Your task to perform on an android device: toggle airplane mode Image 0: 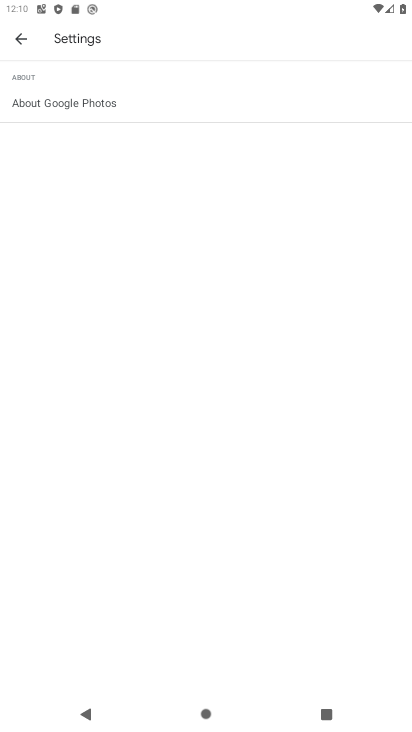
Step 0: press home button
Your task to perform on an android device: toggle airplane mode Image 1: 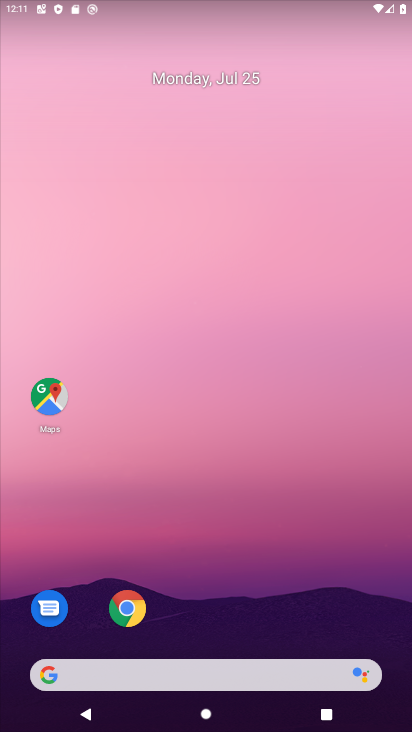
Step 1: drag from (226, 620) to (228, 0)
Your task to perform on an android device: toggle airplane mode Image 2: 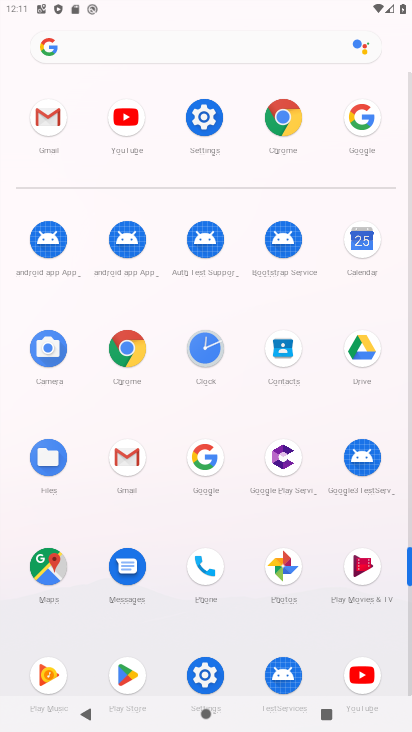
Step 2: click (201, 130)
Your task to perform on an android device: toggle airplane mode Image 3: 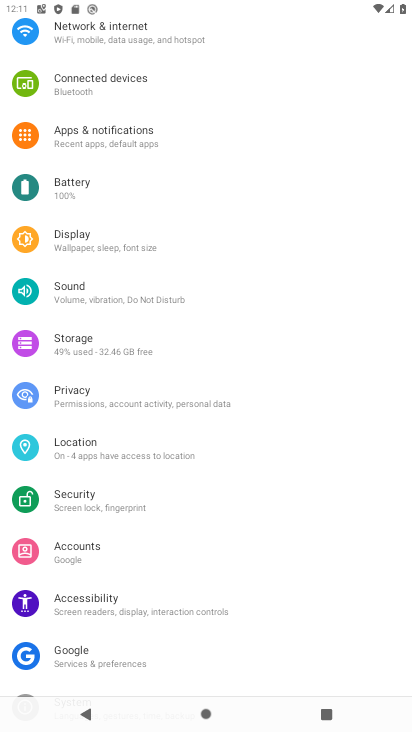
Step 3: click (108, 27)
Your task to perform on an android device: toggle airplane mode Image 4: 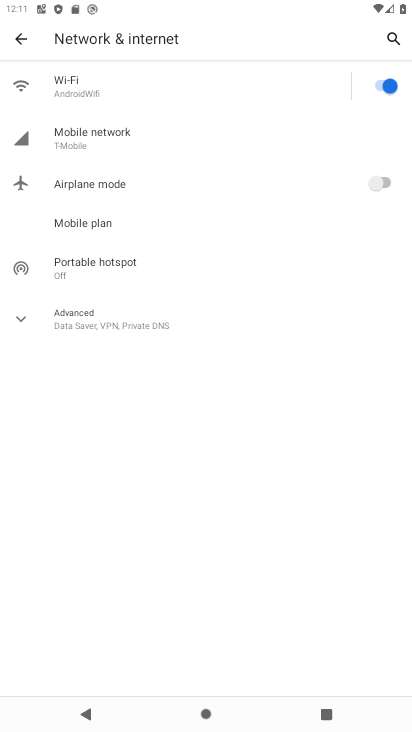
Step 4: click (383, 179)
Your task to perform on an android device: toggle airplane mode Image 5: 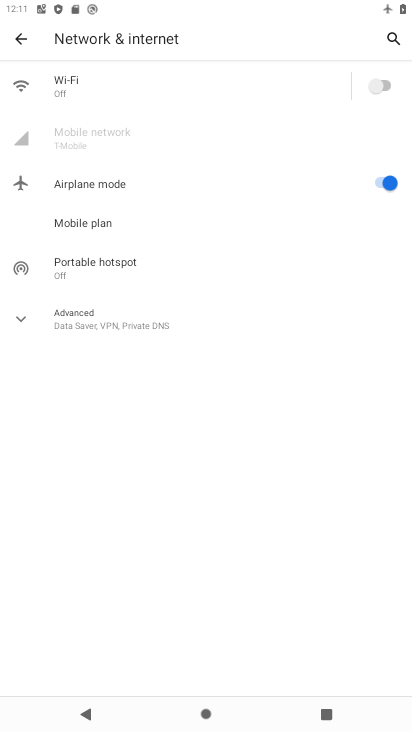
Step 5: task complete